Your task to perform on an android device: What's the weather? Image 0: 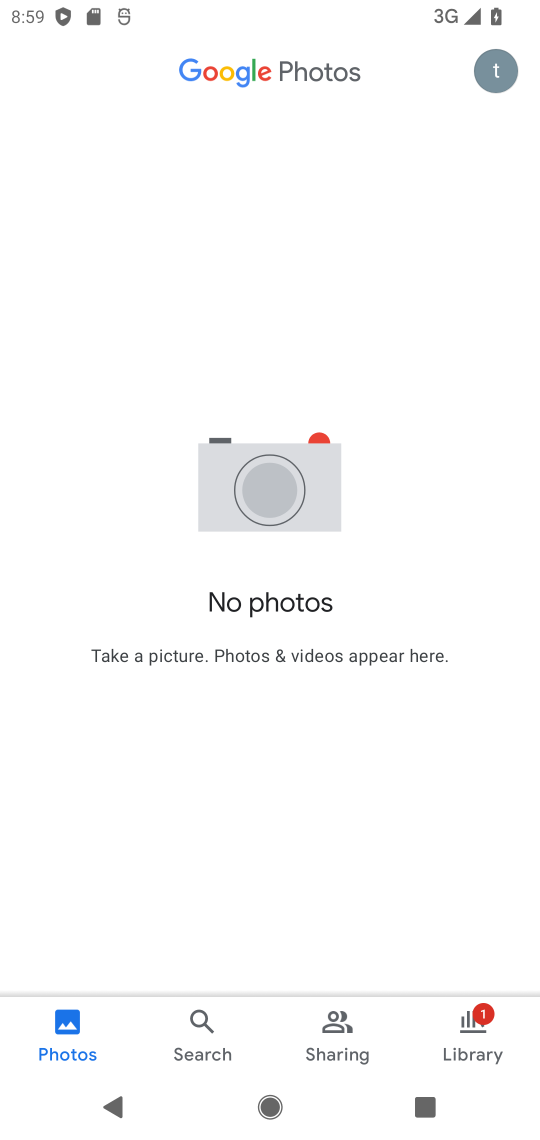
Step 0: press home button
Your task to perform on an android device: What's the weather? Image 1: 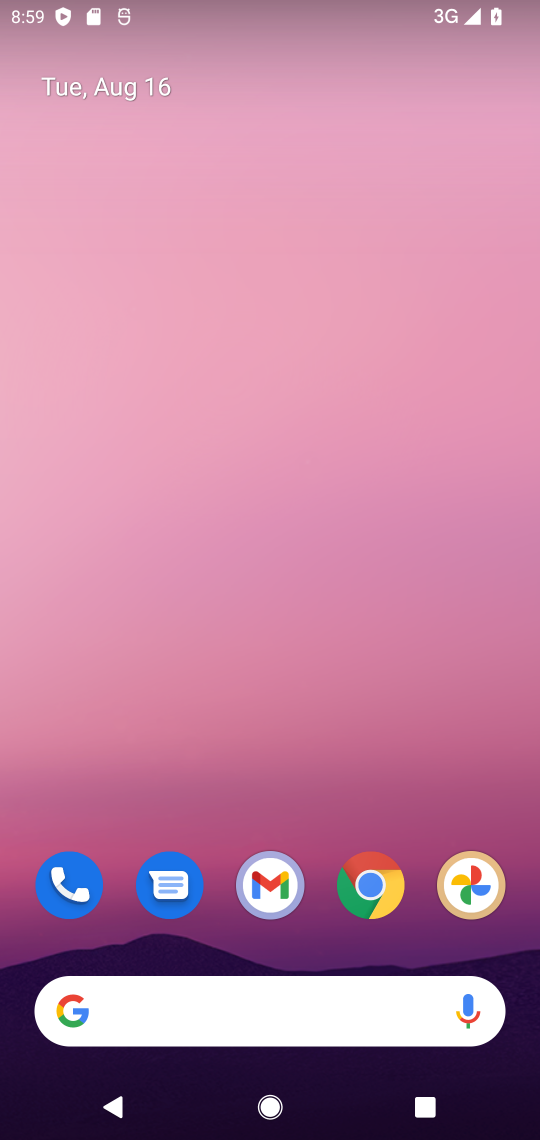
Step 1: click (267, 1015)
Your task to perform on an android device: What's the weather? Image 2: 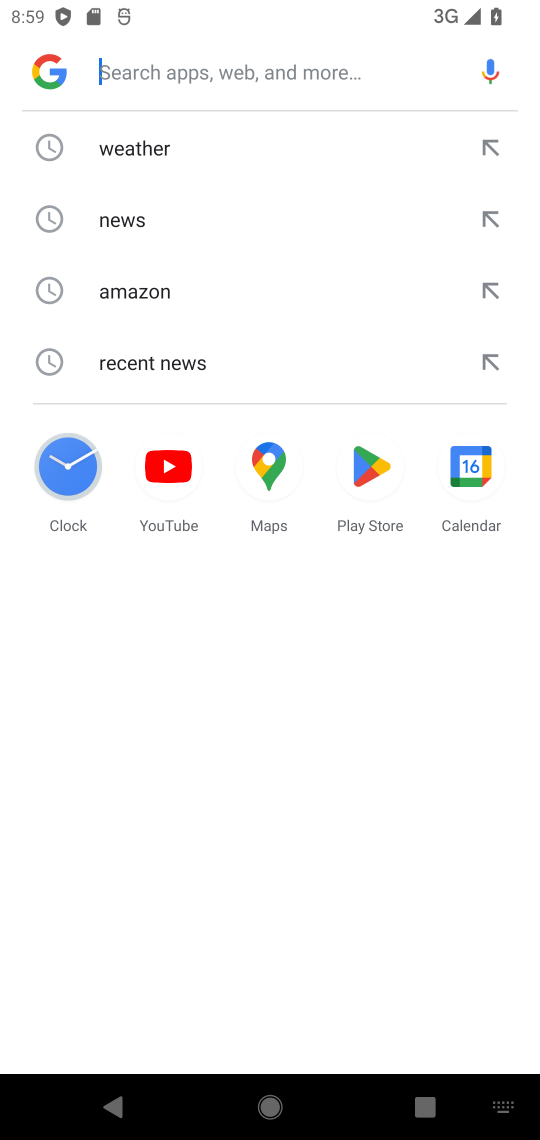
Step 2: click (125, 150)
Your task to perform on an android device: What's the weather? Image 3: 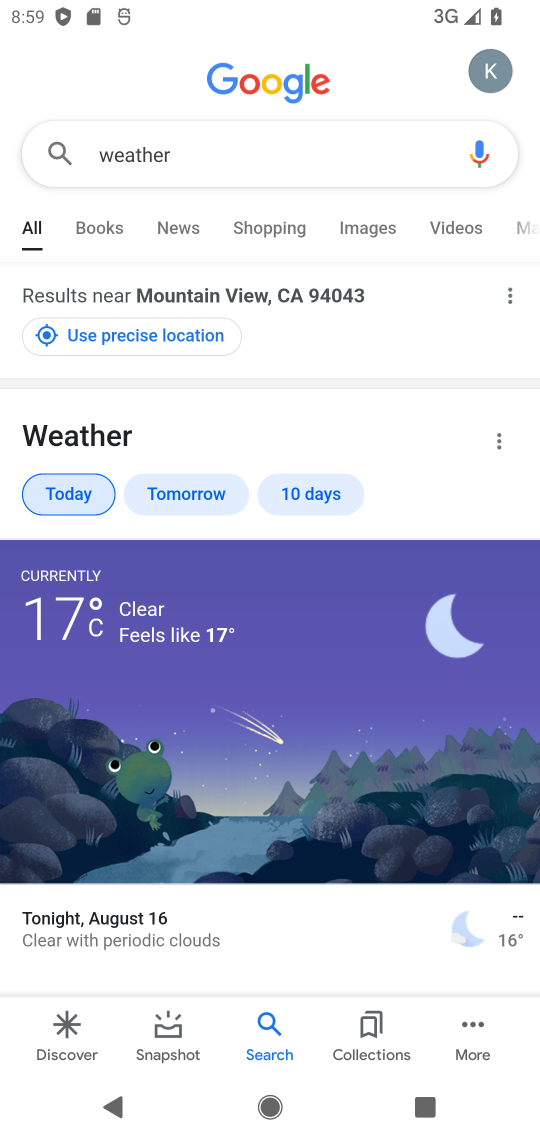
Step 3: task complete